Your task to perform on an android device: Go to settings Image 0: 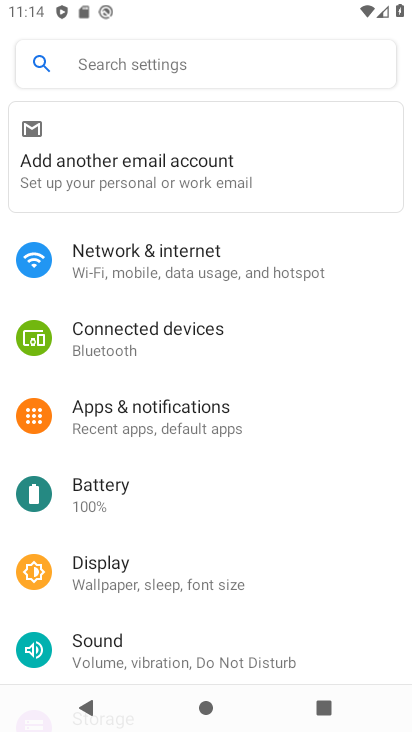
Step 0: press home button
Your task to perform on an android device: Go to settings Image 1: 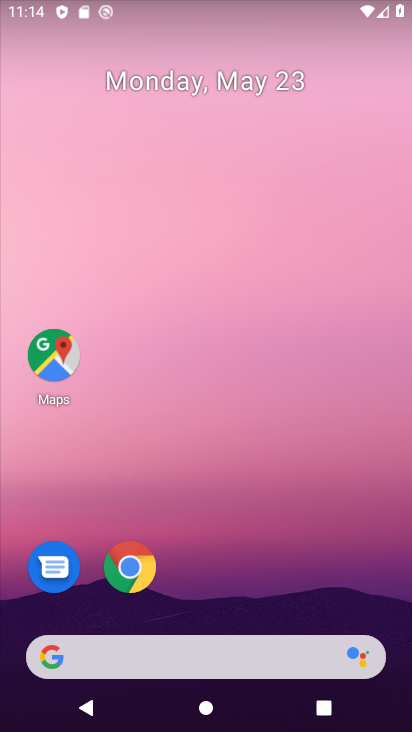
Step 1: drag from (298, 611) to (308, 261)
Your task to perform on an android device: Go to settings Image 2: 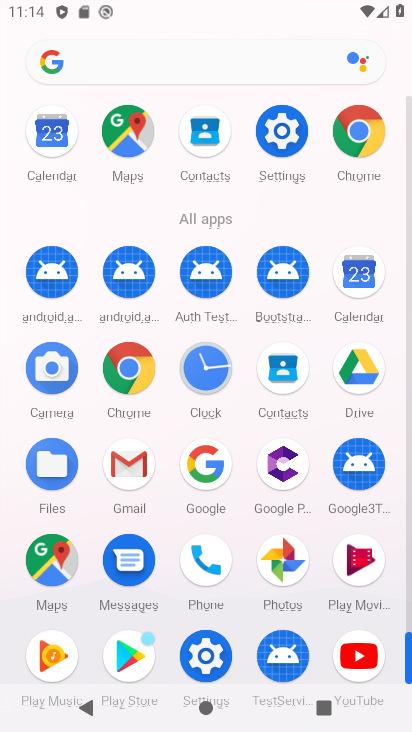
Step 2: click (283, 138)
Your task to perform on an android device: Go to settings Image 3: 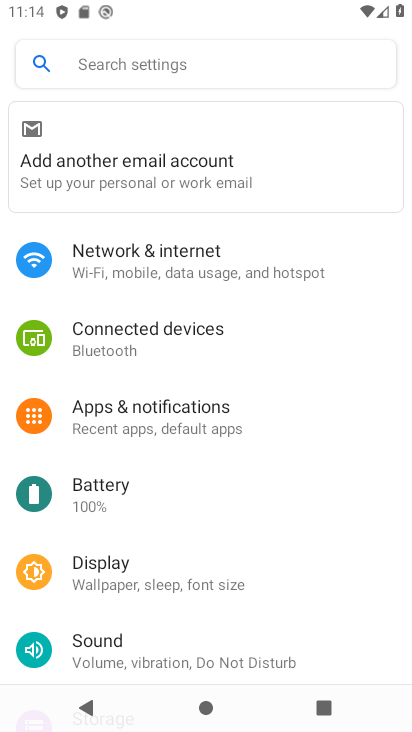
Step 3: task complete